Your task to perform on an android device: Add "acer predator" to the cart on amazon.com Image 0: 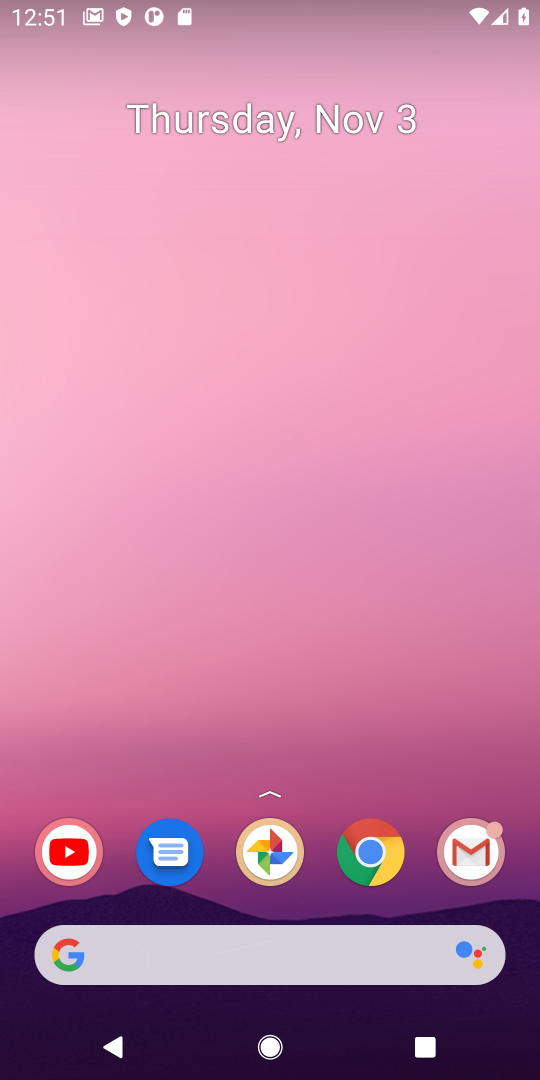
Step 0: click (359, 860)
Your task to perform on an android device: Add "acer predator" to the cart on amazon.com Image 1: 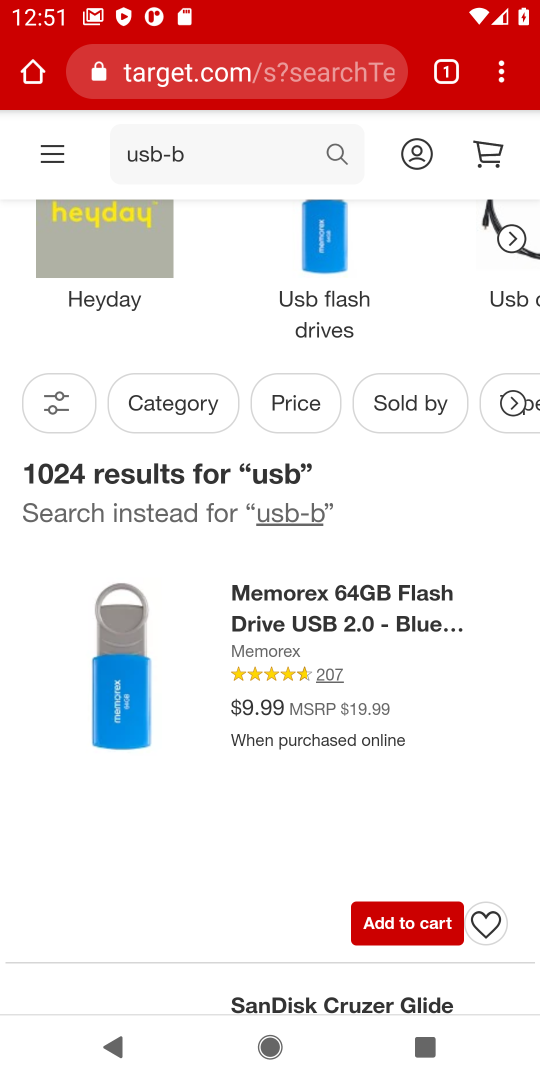
Step 1: click (223, 58)
Your task to perform on an android device: Add "acer predator" to the cart on amazon.com Image 2: 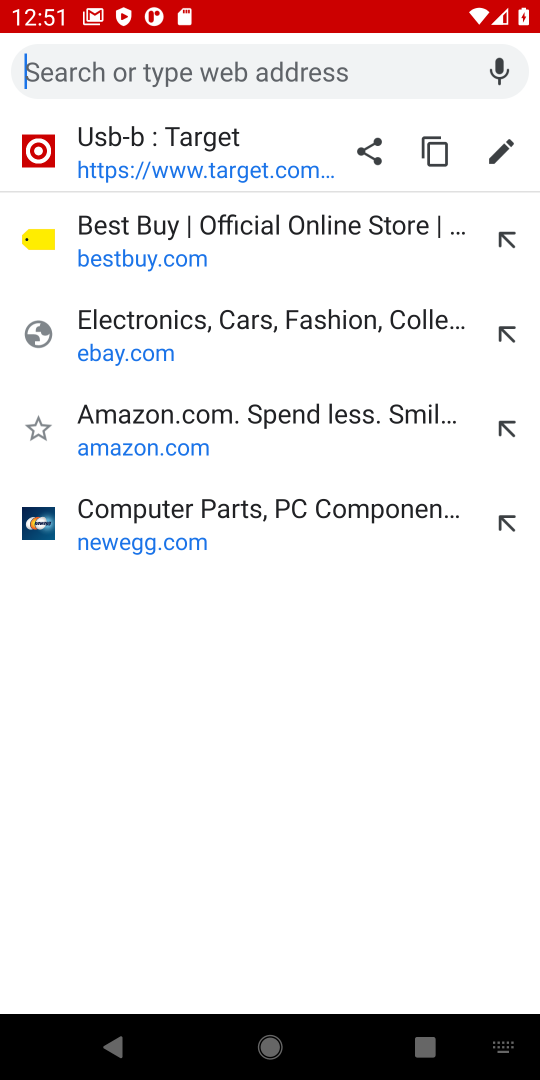
Step 2: click (159, 442)
Your task to perform on an android device: Add "acer predator" to the cart on amazon.com Image 3: 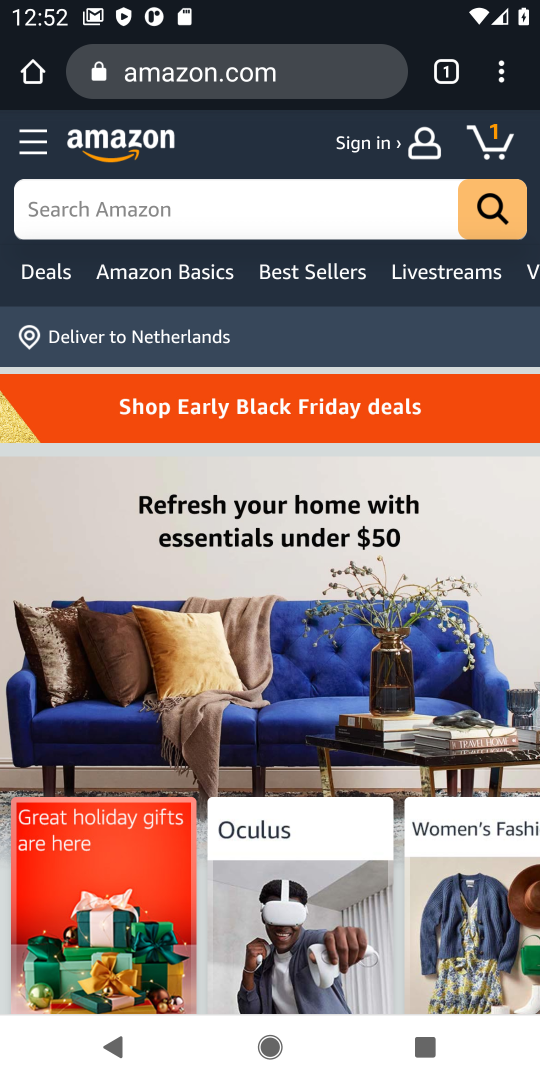
Step 3: click (190, 213)
Your task to perform on an android device: Add "acer predator" to the cart on amazon.com Image 4: 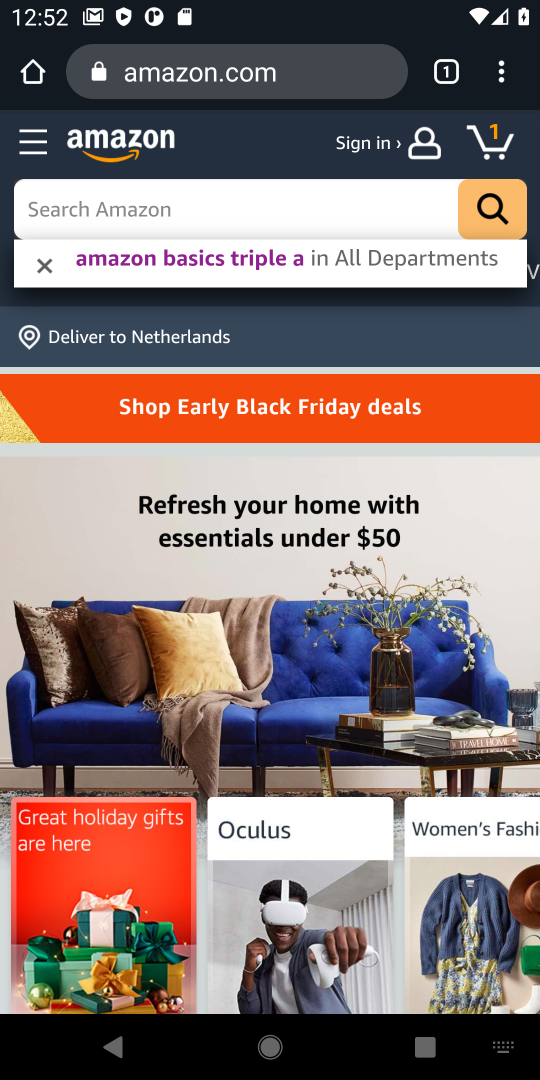
Step 4: type "acer predator"
Your task to perform on an android device: Add "acer predator" to the cart on amazon.com Image 5: 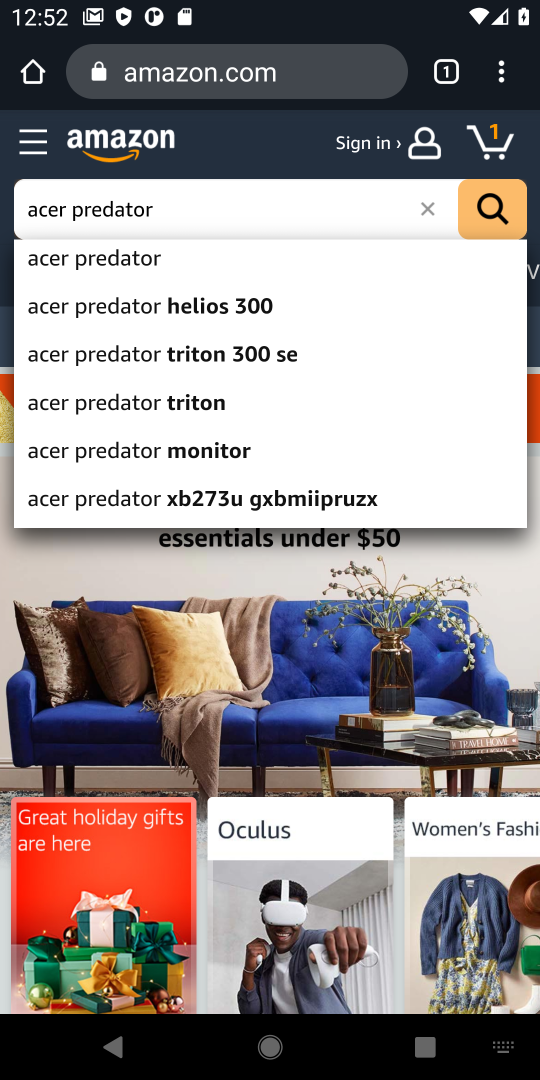
Step 5: click (119, 263)
Your task to perform on an android device: Add "acer predator" to the cart on amazon.com Image 6: 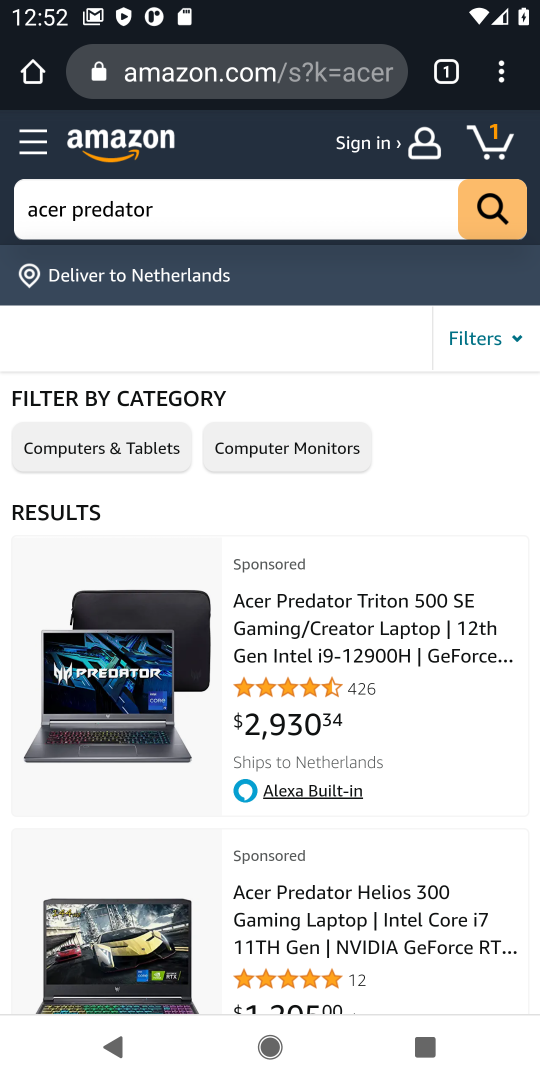
Step 6: click (280, 687)
Your task to perform on an android device: Add "acer predator" to the cart on amazon.com Image 7: 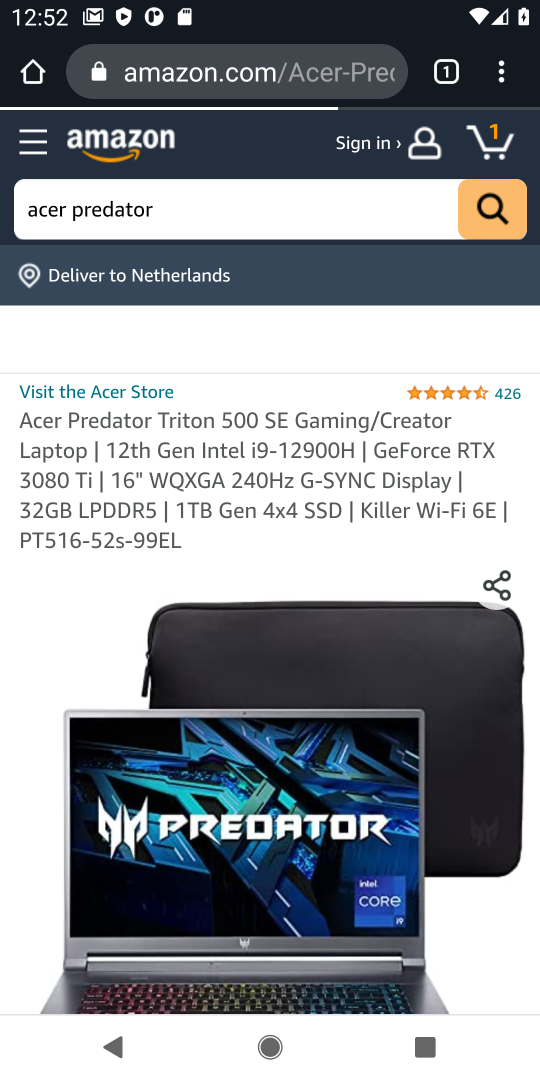
Step 7: drag from (280, 687) to (298, 213)
Your task to perform on an android device: Add "acer predator" to the cart on amazon.com Image 8: 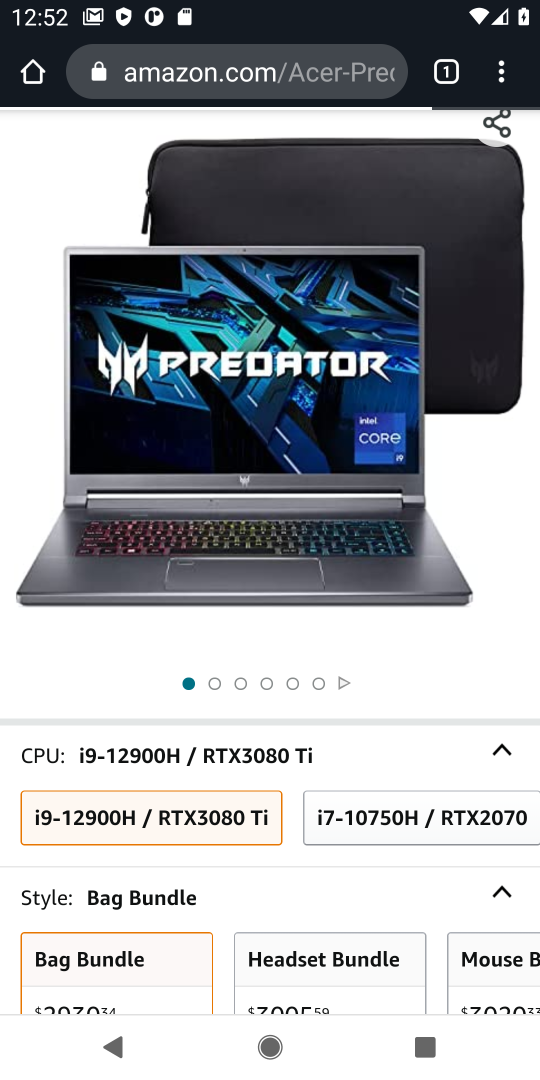
Step 8: drag from (295, 716) to (298, 270)
Your task to perform on an android device: Add "acer predator" to the cart on amazon.com Image 9: 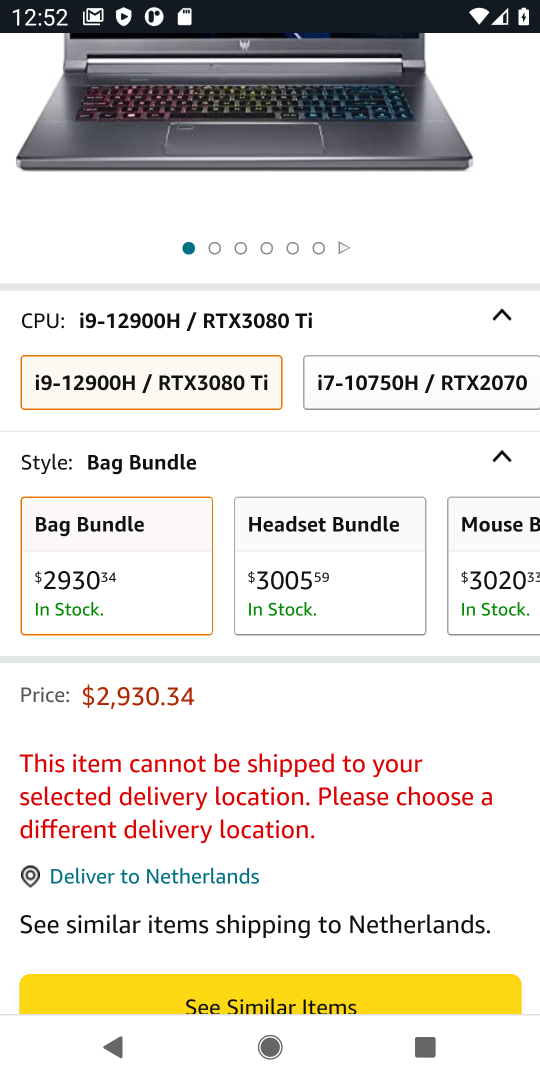
Step 9: drag from (277, 773) to (253, 926)
Your task to perform on an android device: Add "acer predator" to the cart on amazon.com Image 10: 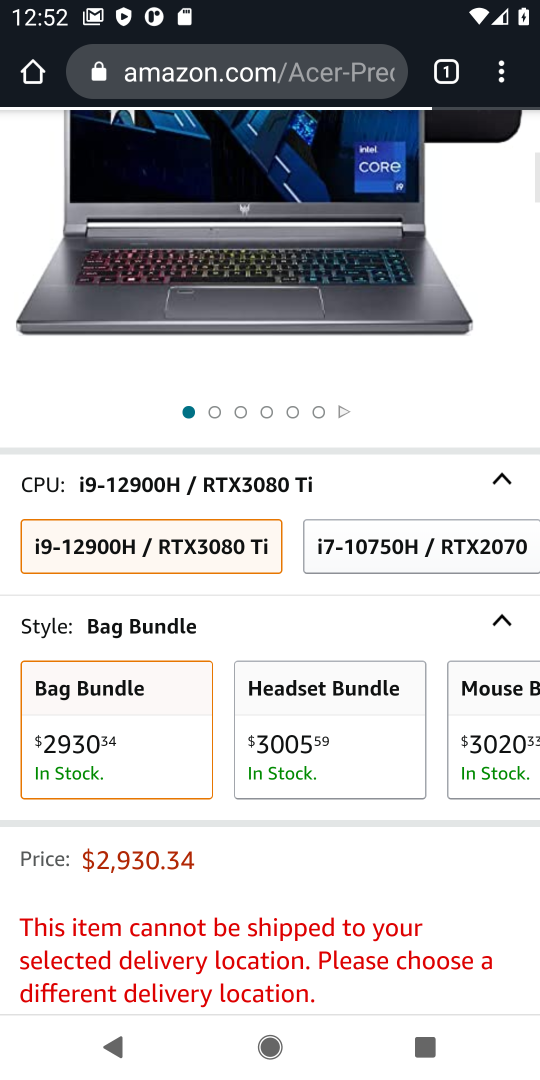
Step 10: press back button
Your task to perform on an android device: Add "acer predator" to the cart on amazon.com Image 11: 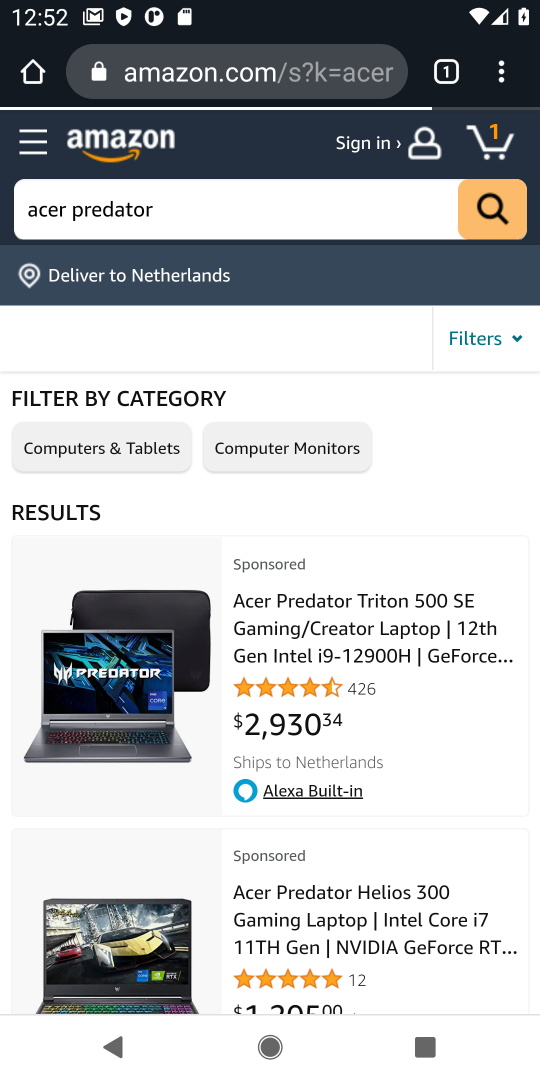
Step 11: drag from (275, 771) to (301, 394)
Your task to perform on an android device: Add "acer predator" to the cart on amazon.com Image 12: 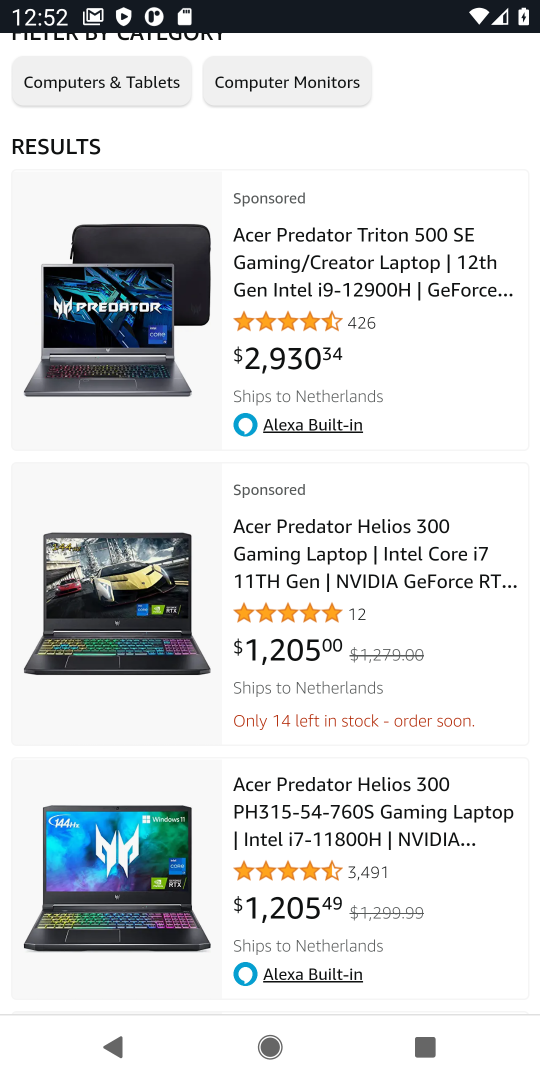
Step 12: click (205, 592)
Your task to perform on an android device: Add "acer predator" to the cart on amazon.com Image 13: 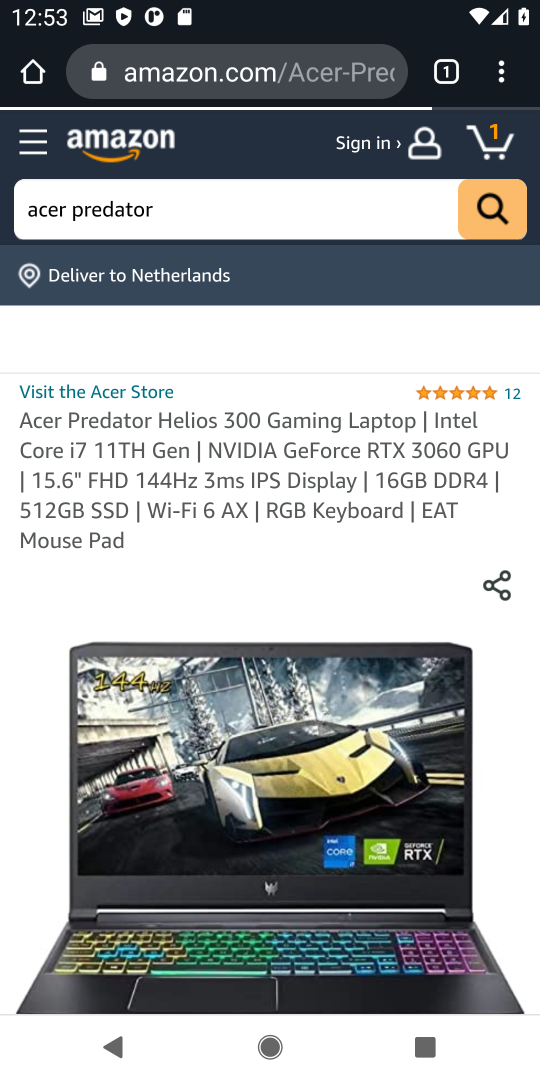
Step 13: drag from (254, 794) to (321, 247)
Your task to perform on an android device: Add "acer predator" to the cart on amazon.com Image 14: 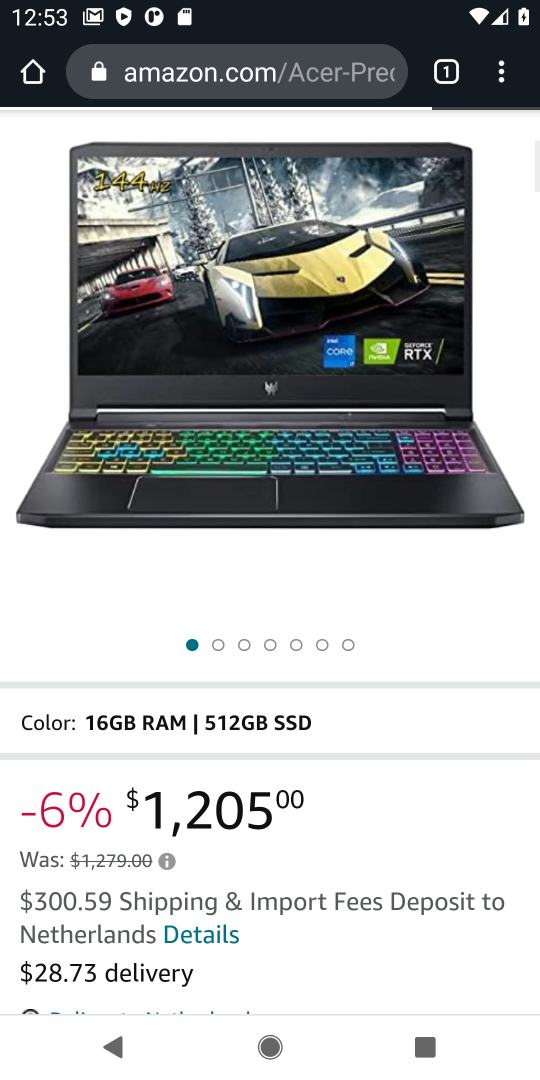
Step 14: drag from (251, 721) to (315, 236)
Your task to perform on an android device: Add "acer predator" to the cart on amazon.com Image 15: 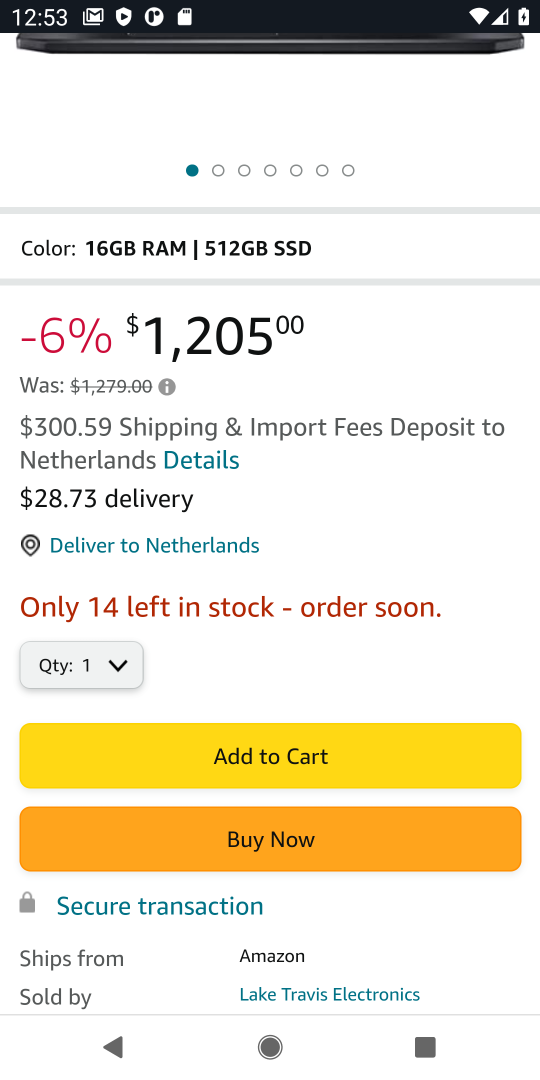
Step 15: click (244, 751)
Your task to perform on an android device: Add "acer predator" to the cart on amazon.com Image 16: 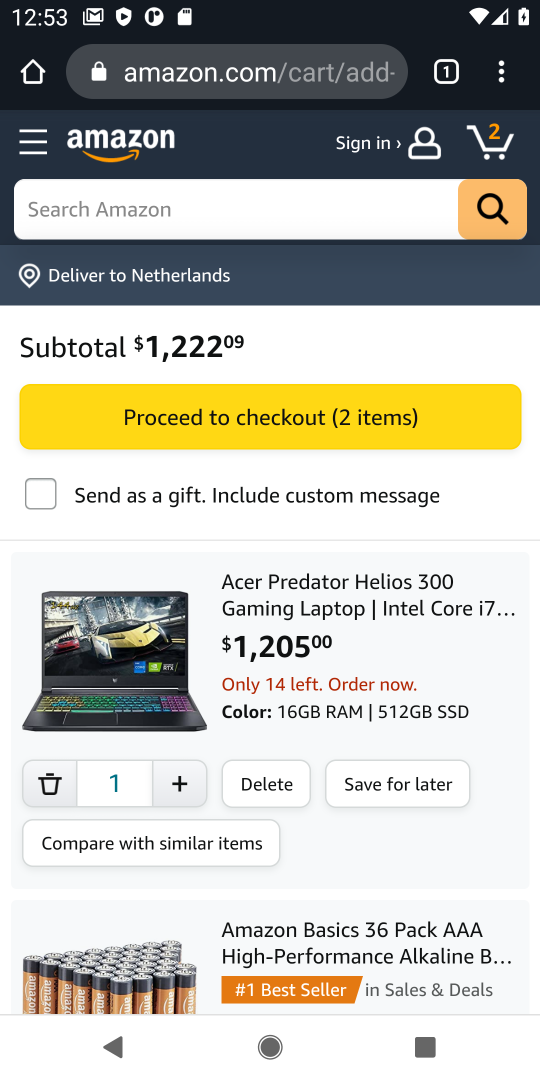
Step 16: task complete